Your task to perform on an android device: Open calendar and show me the second week of next month Image 0: 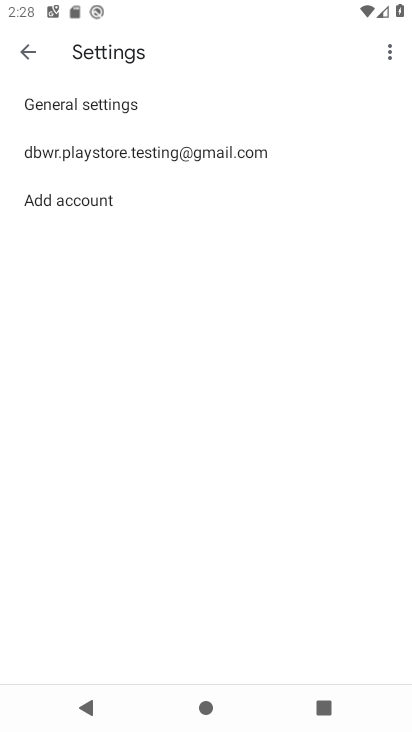
Step 0: press home button
Your task to perform on an android device: Open calendar and show me the second week of next month Image 1: 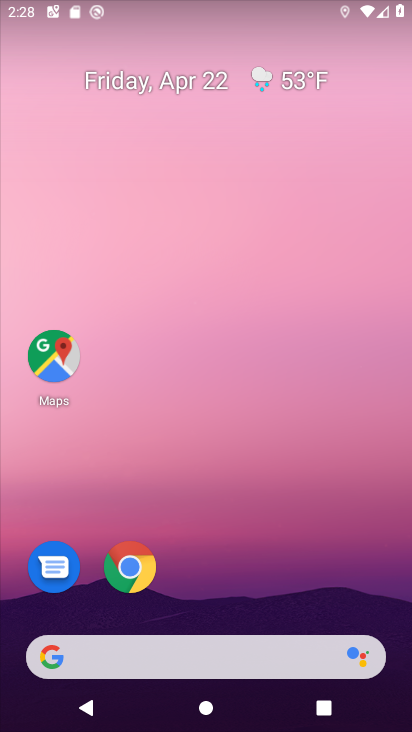
Step 1: drag from (339, 559) to (370, 120)
Your task to perform on an android device: Open calendar and show me the second week of next month Image 2: 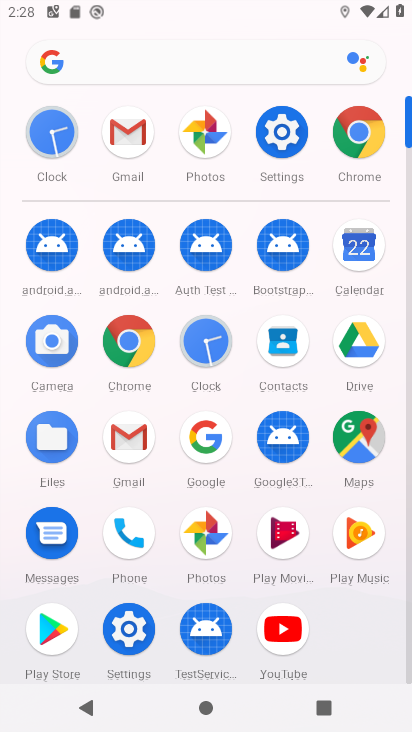
Step 2: click (363, 248)
Your task to perform on an android device: Open calendar and show me the second week of next month Image 3: 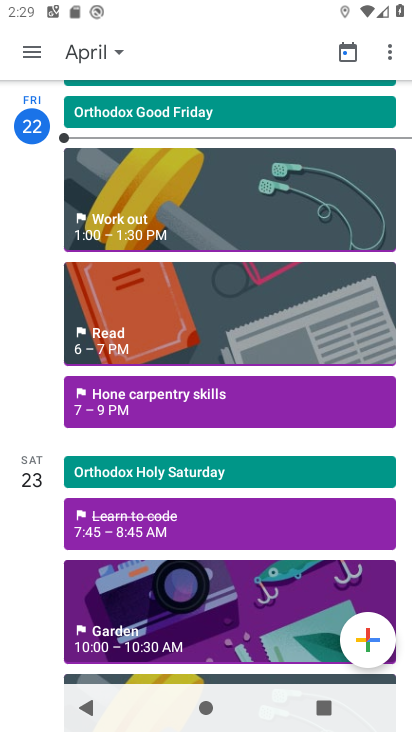
Step 3: click (38, 53)
Your task to perform on an android device: Open calendar and show me the second week of next month Image 4: 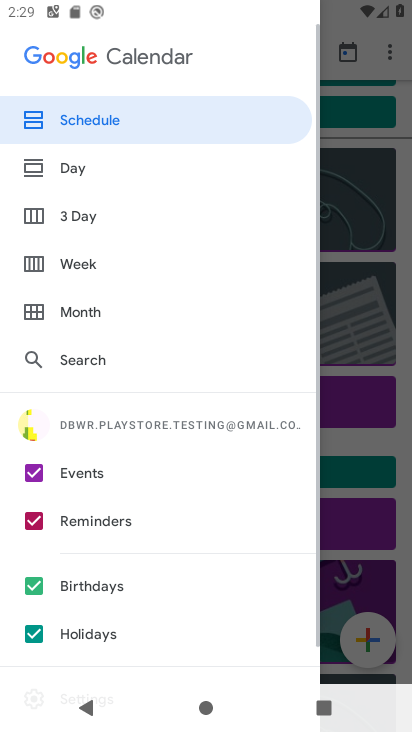
Step 4: click (63, 264)
Your task to perform on an android device: Open calendar and show me the second week of next month Image 5: 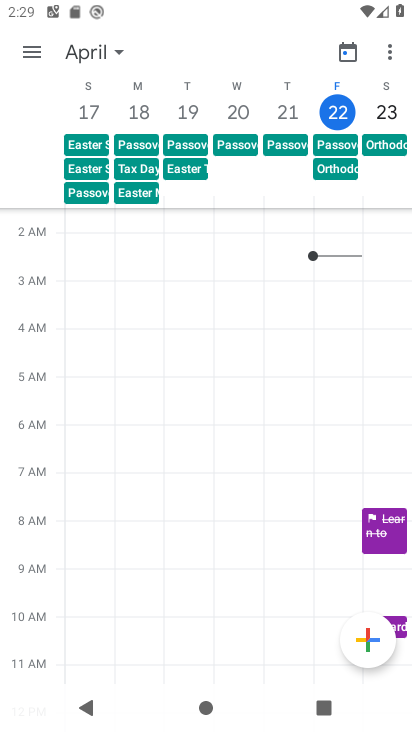
Step 5: task complete